Your task to perform on an android device: turn off wifi Image 0: 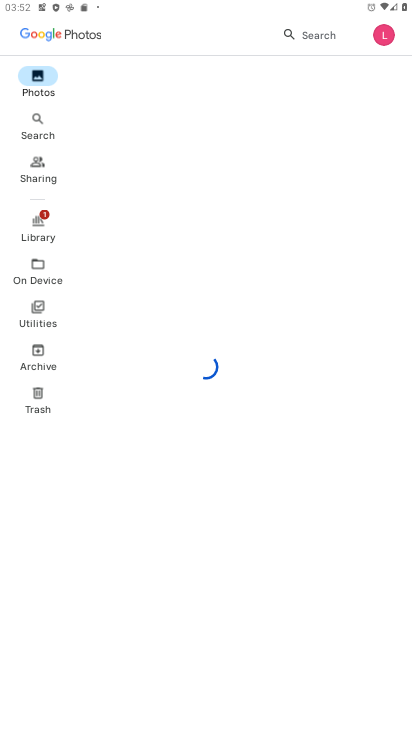
Step 0: press home button
Your task to perform on an android device: turn off wifi Image 1: 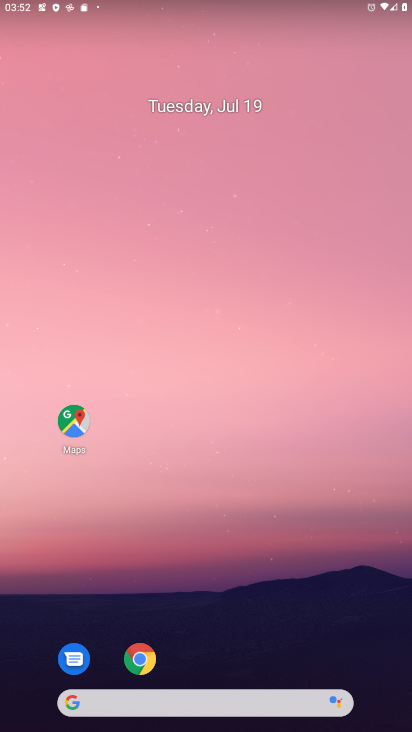
Step 1: drag from (333, 11) to (218, 393)
Your task to perform on an android device: turn off wifi Image 2: 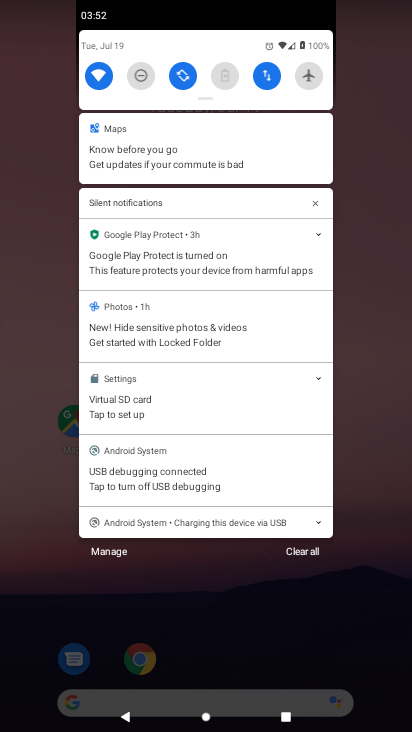
Step 2: click (105, 77)
Your task to perform on an android device: turn off wifi Image 3: 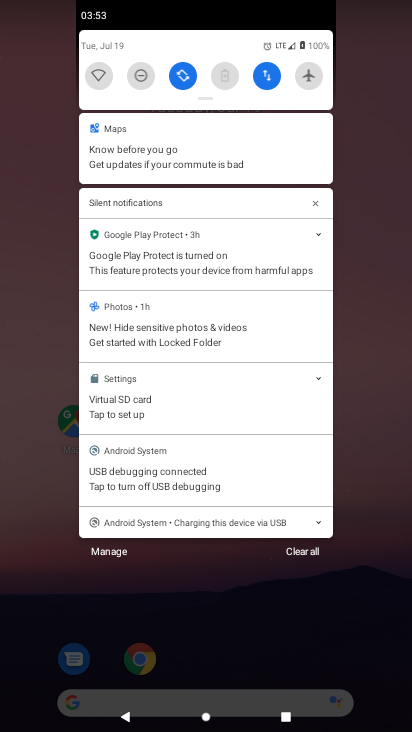
Step 3: task complete